Your task to perform on an android device: all mails in gmail Image 0: 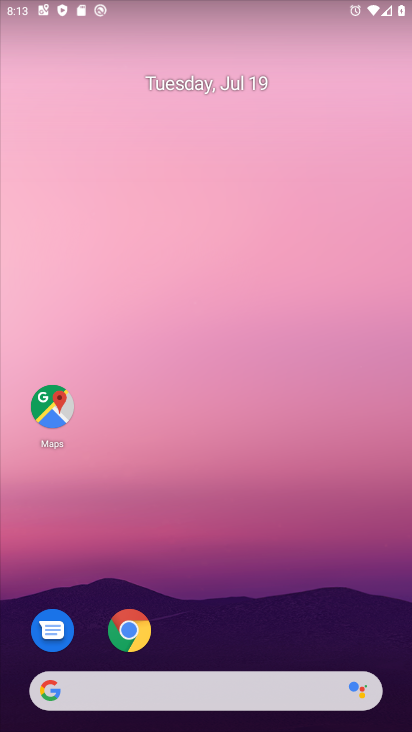
Step 0: drag from (317, 623) to (178, 20)
Your task to perform on an android device: all mails in gmail Image 1: 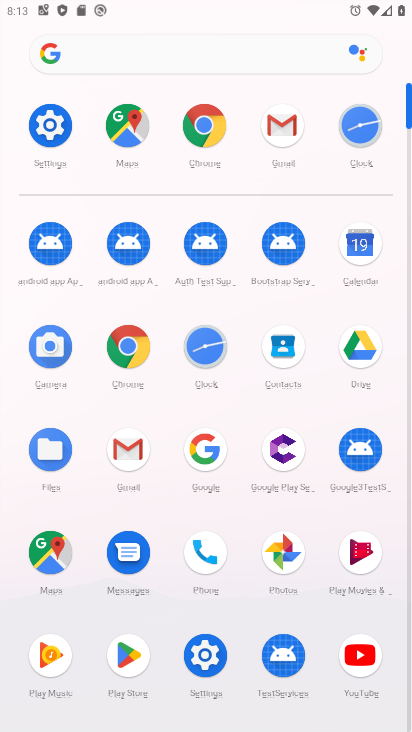
Step 1: click (277, 120)
Your task to perform on an android device: all mails in gmail Image 2: 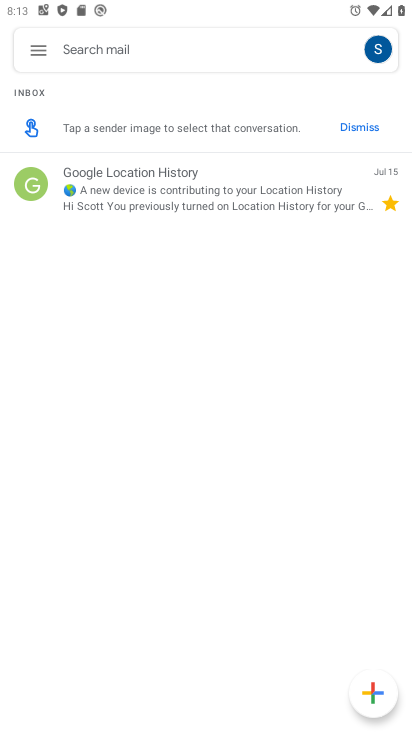
Step 2: click (36, 56)
Your task to perform on an android device: all mails in gmail Image 3: 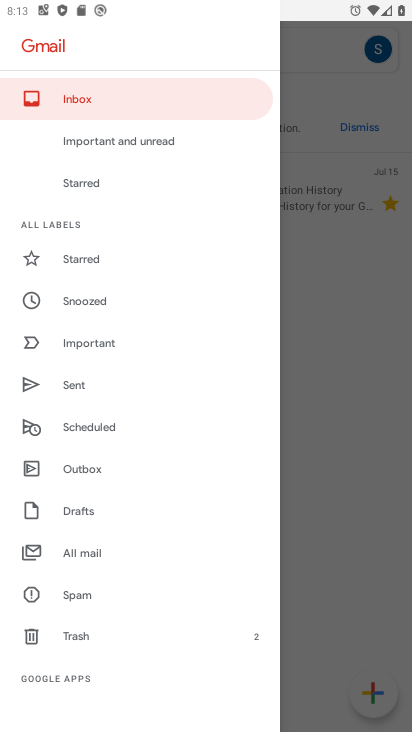
Step 3: click (88, 555)
Your task to perform on an android device: all mails in gmail Image 4: 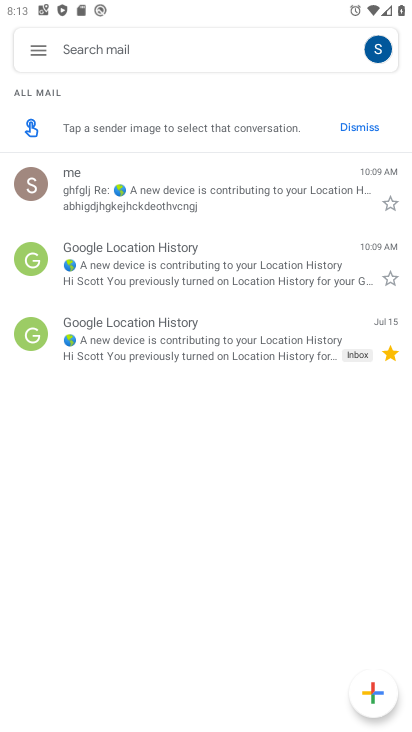
Step 4: task complete